Your task to perform on an android device: Show me popular games on the Play Store Image 0: 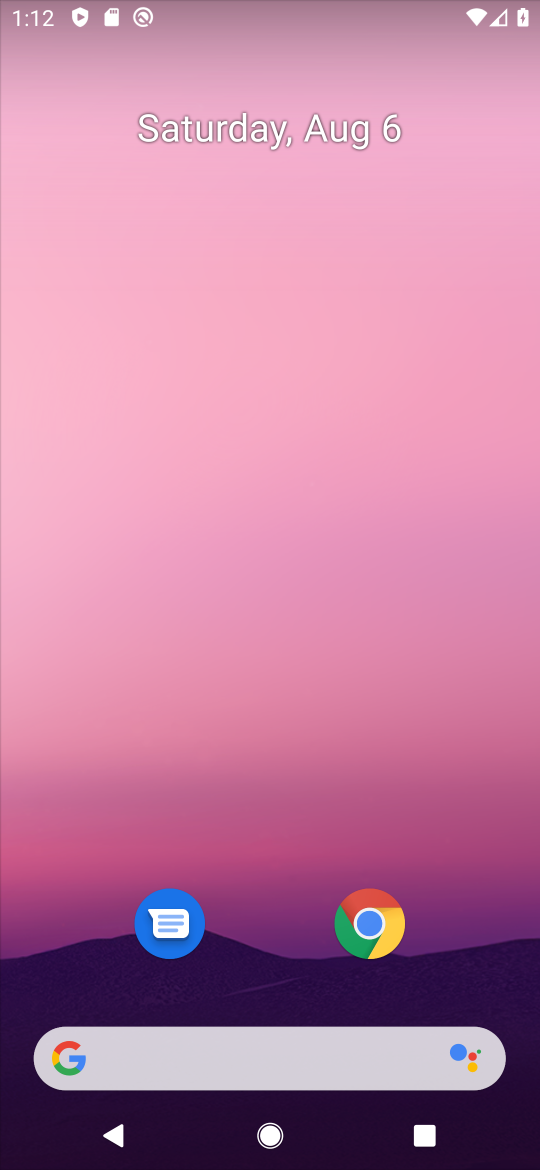
Step 0: drag from (265, 781) to (324, 283)
Your task to perform on an android device: Show me popular games on the Play Store Image 1: 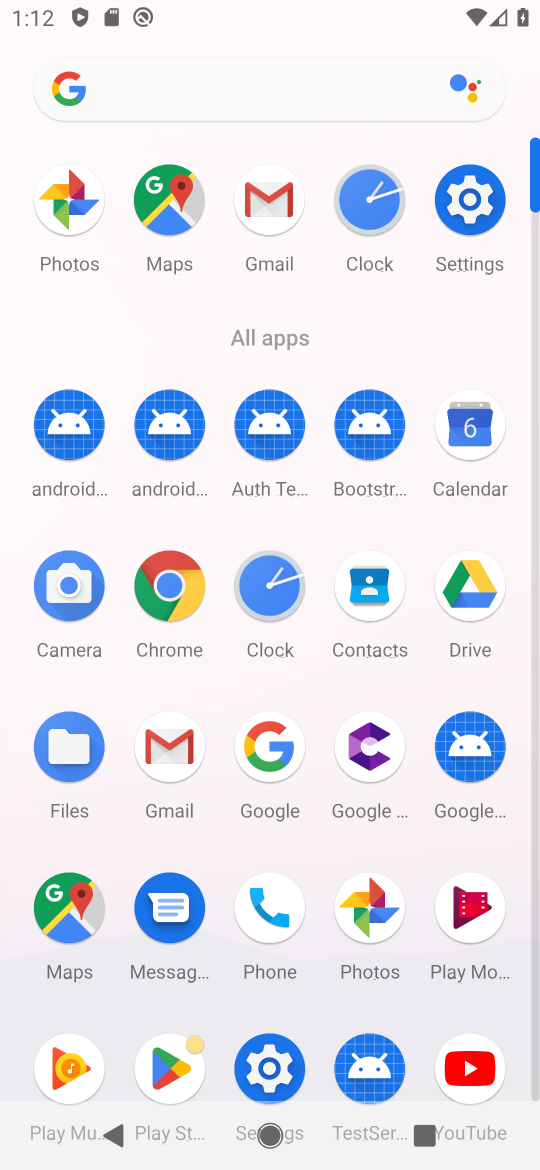
Step 1: click (154, 1053)
Your task to perform on an android device: Show me popular games on the Play Store Image 2: 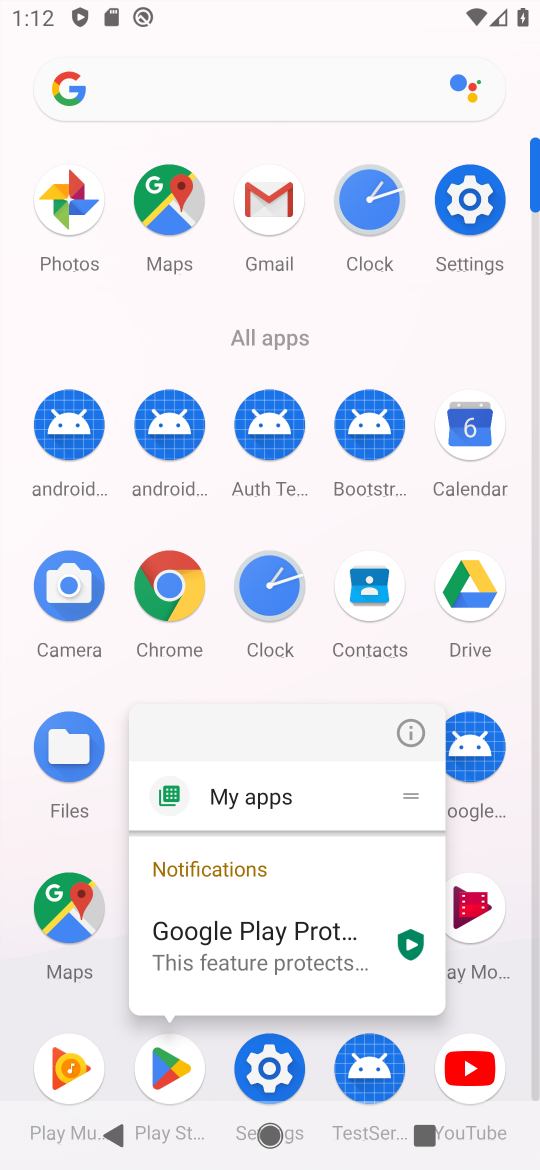
Step 2: click (423, 730)
Your task to perform on an android device: Show me popular games on the Play Store Image 3: 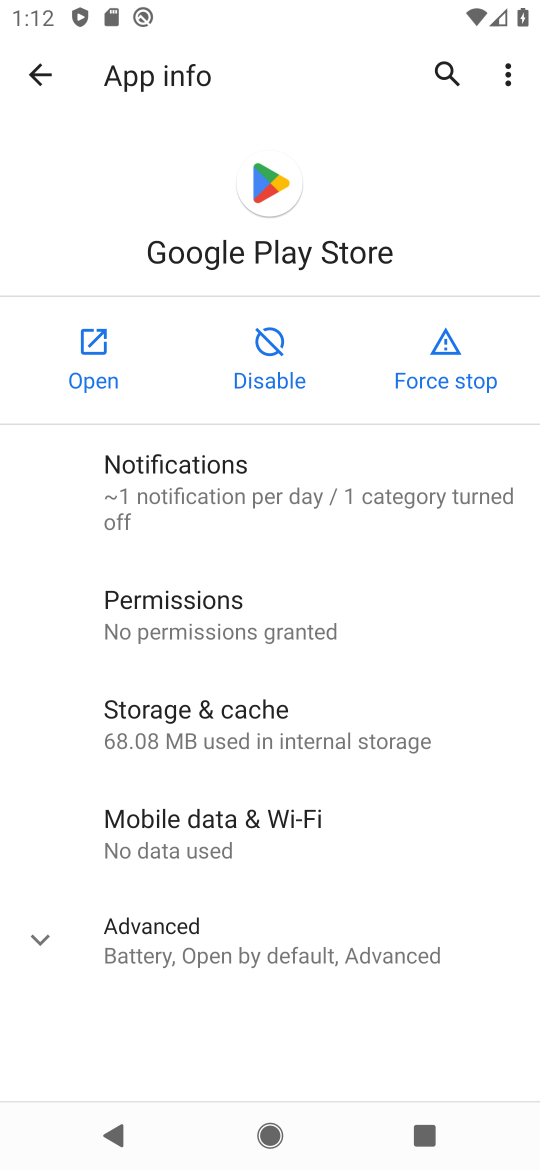
Step 3: click (98, 364)
Your task to perform on an android device: Show me popular games on the Play Store Image 4: 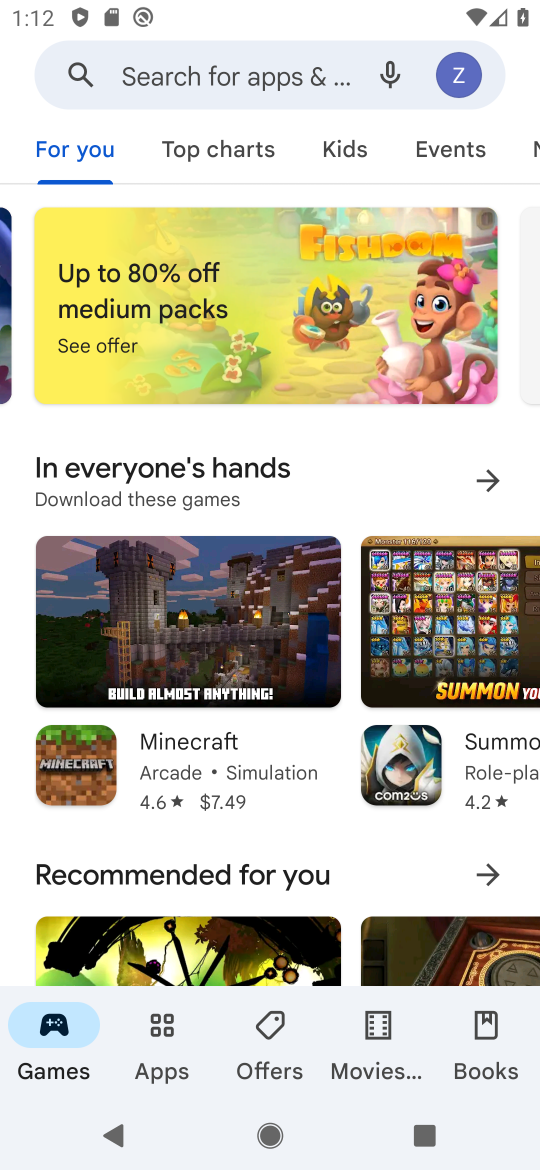
Step 4: click (227, 78)
Your task to perform on an android device: Show me popular games on the Play Store Image 5: 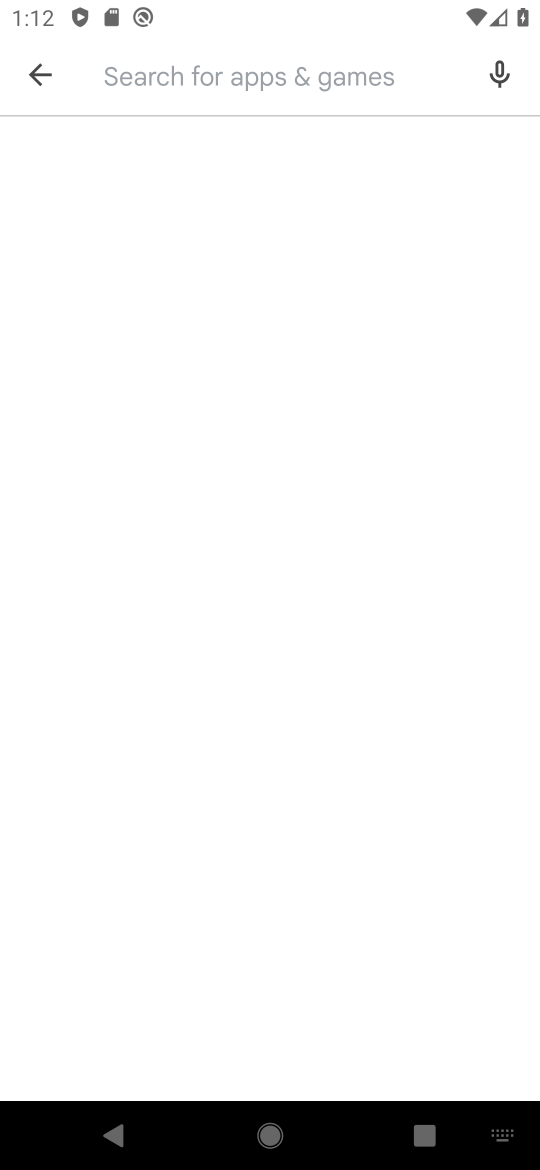
Step 5: click (39, 73)
Your task to perform on an android device: Show me popular games on the Play Store Image 6: 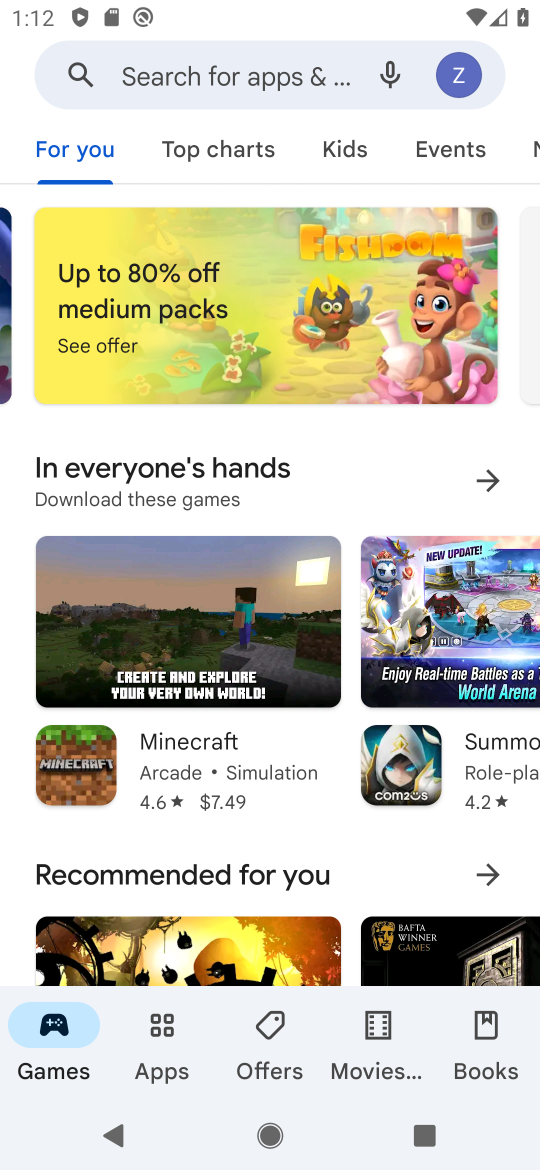
Step 6: task complete